Your task to perform on an android device: Open sound settings Image 0: 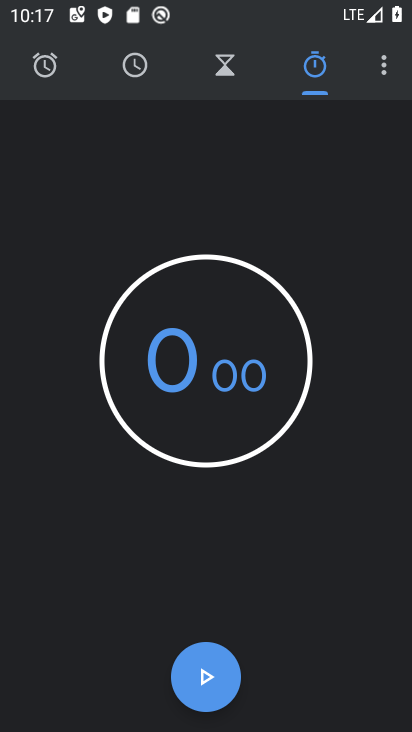
Step 0: press home button
Your task to perform on an android device: Open sound settings Image 1: 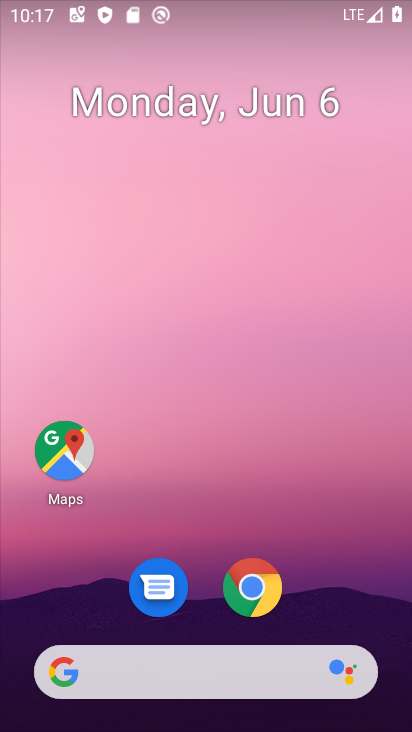
Step 1: drag from (245, 716) to (222, 12)
Your task to perform on an android device: Open sound settings Image 2: 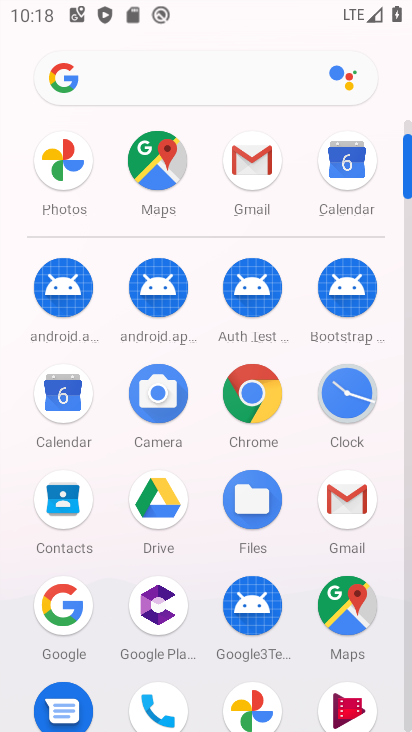
Step 2: drag from (216, 602) to (262, 50)
Your task to perform on an android device: Open sound settings Image 3: 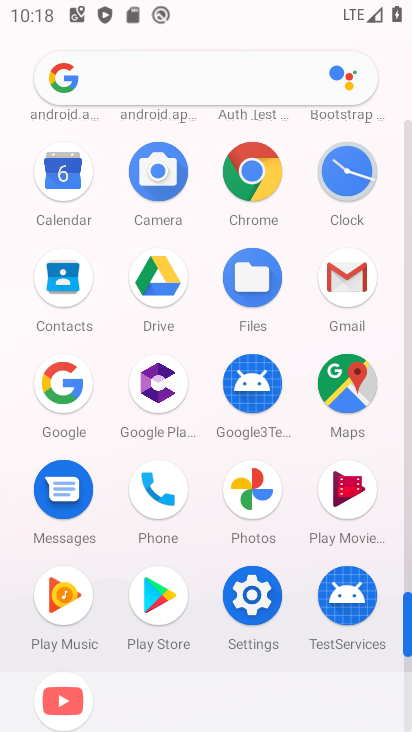
Step 3: click (230, 596)
Your task to perform on an android device: Open sound settings Image 4: 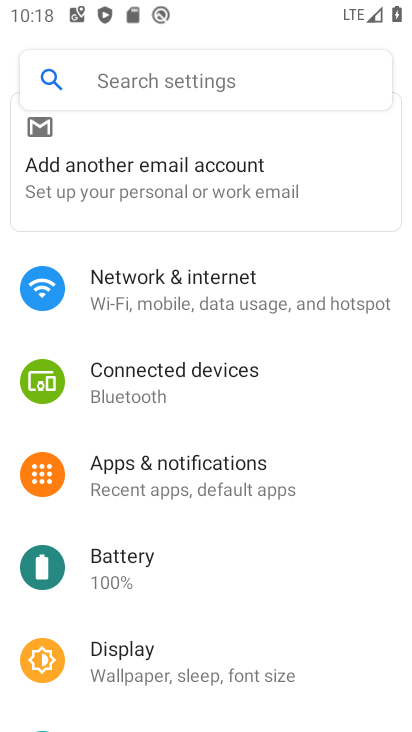
Step 4: drag from (227, 677) to (164, 16)
Your task to perform on an android device: Open sound settings Image 5: 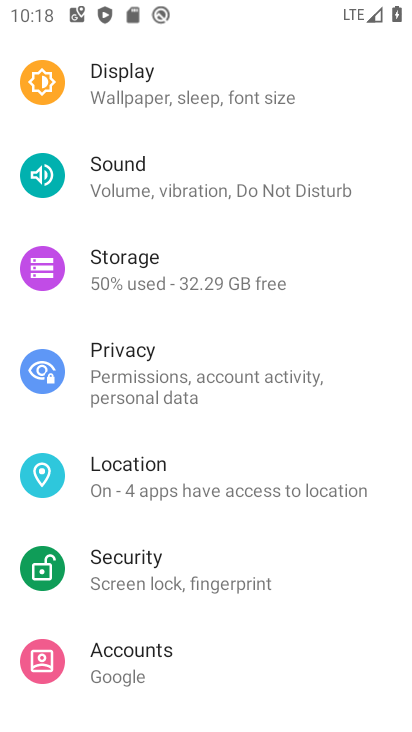
Step 5: click (295, 190)
Your task to perform on an android device: Open sound settings Image 6: 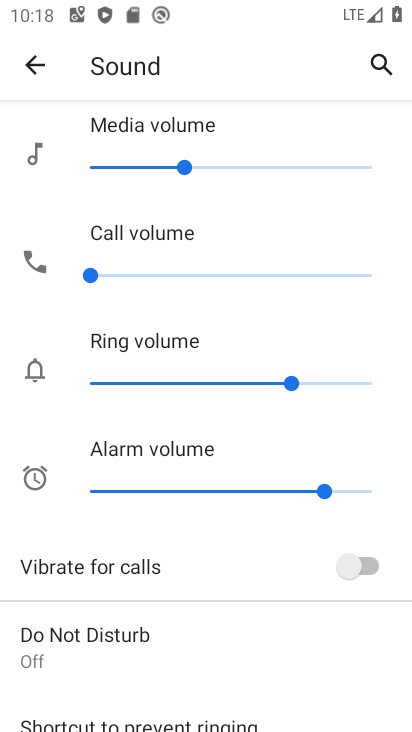
Step 6: task complete